Your task to perform on an android device: Check the news Image 0: 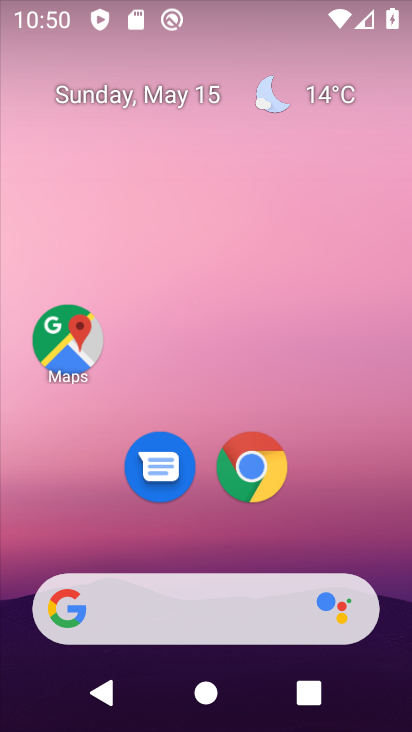
Step 0: press home button
Your task to perform on an android device: Check the news Image 1: 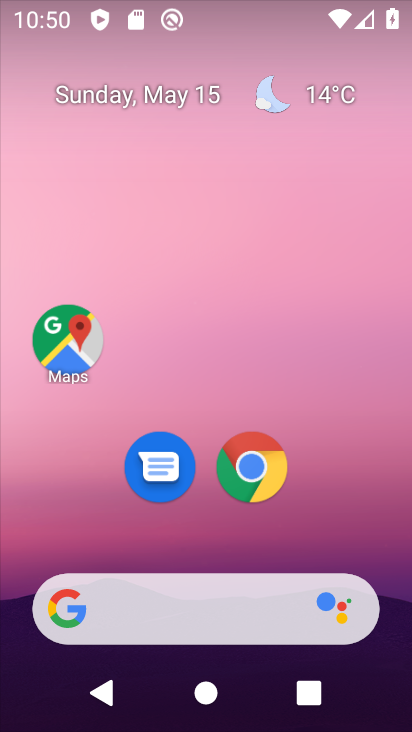
Step 1: click (221, 508)
Your task to perform on an android device: Check the news Image 2: 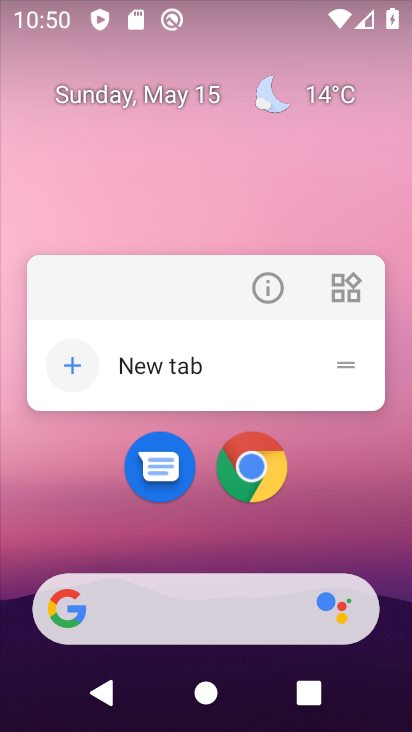
Step 2: task complete